Your task to perform on an android device: Open Yahoo.com Image 0: 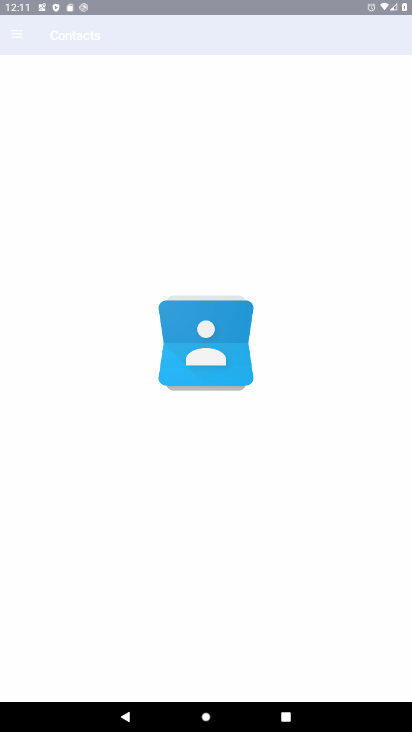
Step 0: click (138, 626)
Your task to perform on an android device: Open Yahoo.com Image 1: 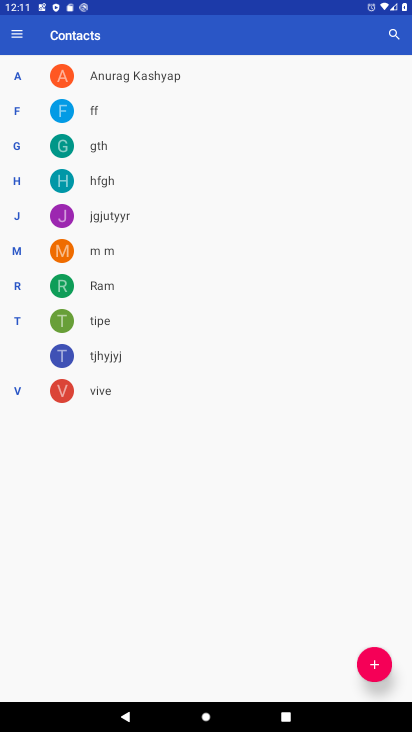
Step 1: press home button
Your task to perform on an android device: Open Yahoo.com Image 2: 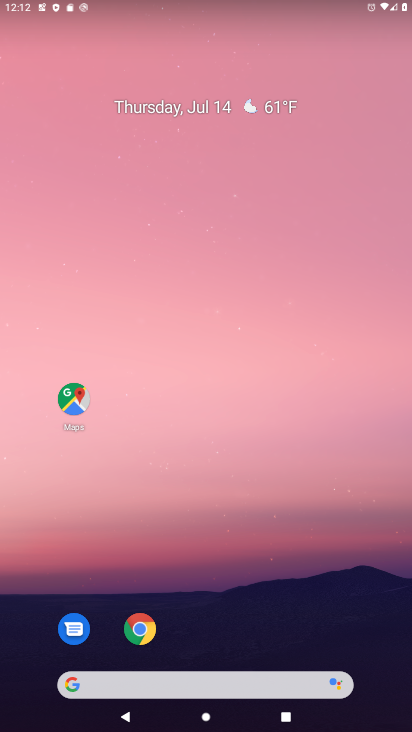
Step 2: click (140, 634)
Your task to perform on an android device: Open Yahoo.com Image 3: 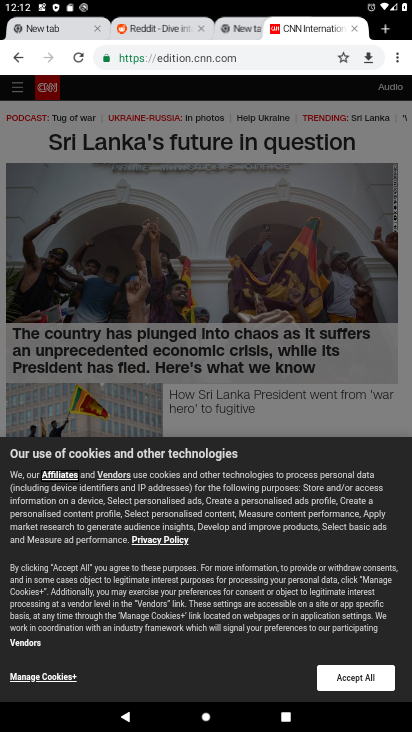
Step 3: click (398, 57)
Your task to perform on an android device: Open Yahoo.com Image 4: 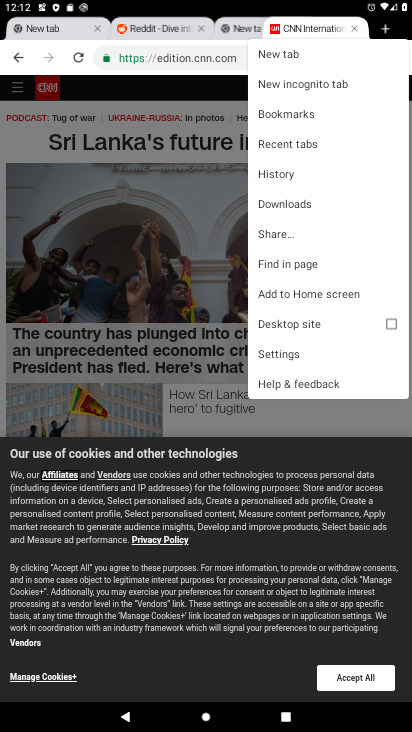
Step 4: click (287, 53)
Your task to perform on an android device: Open Yahoo.com Image 5: 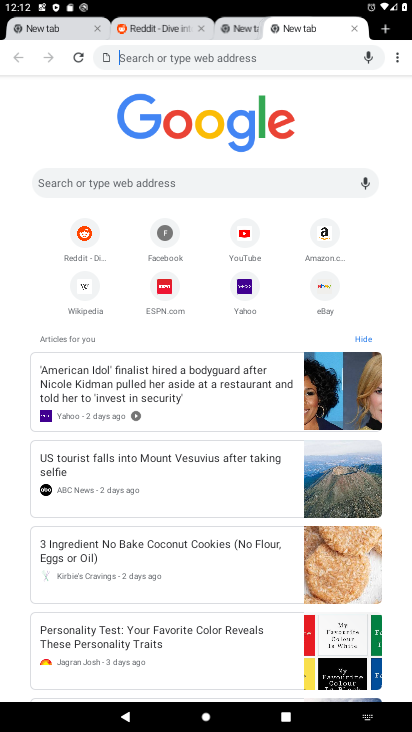
Step 5: click (242, 287)
Your task to perform on an android device: Open Yahoo.com Image 6: 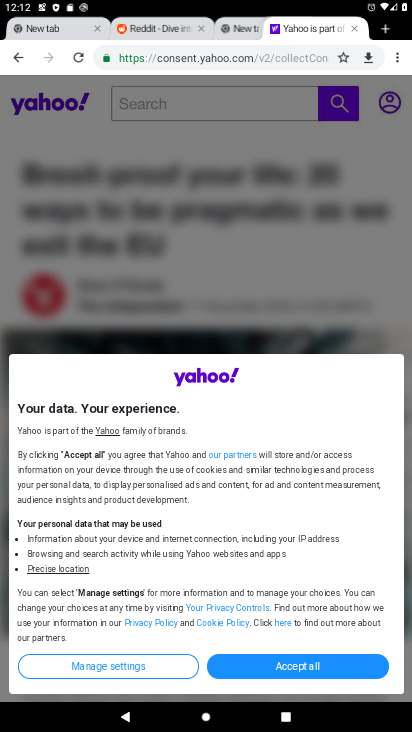
Step 6: click (229, 664)
Your task to perform on an android device: Open Yahoo.com Image 7: 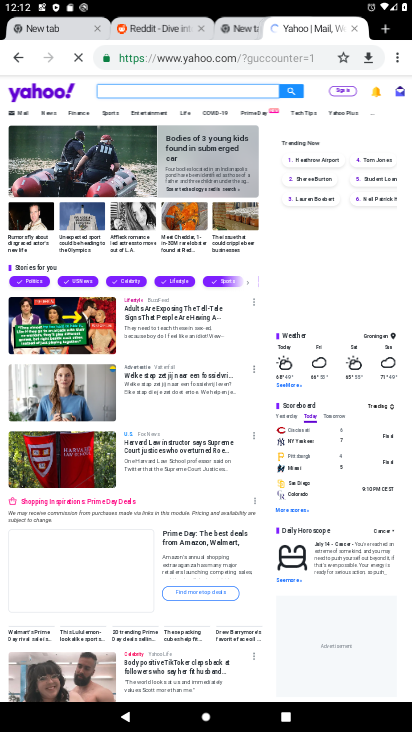
Step 7: task complete